Your task to perform on an android device: make emails show in primary in the gmail app Image 0: 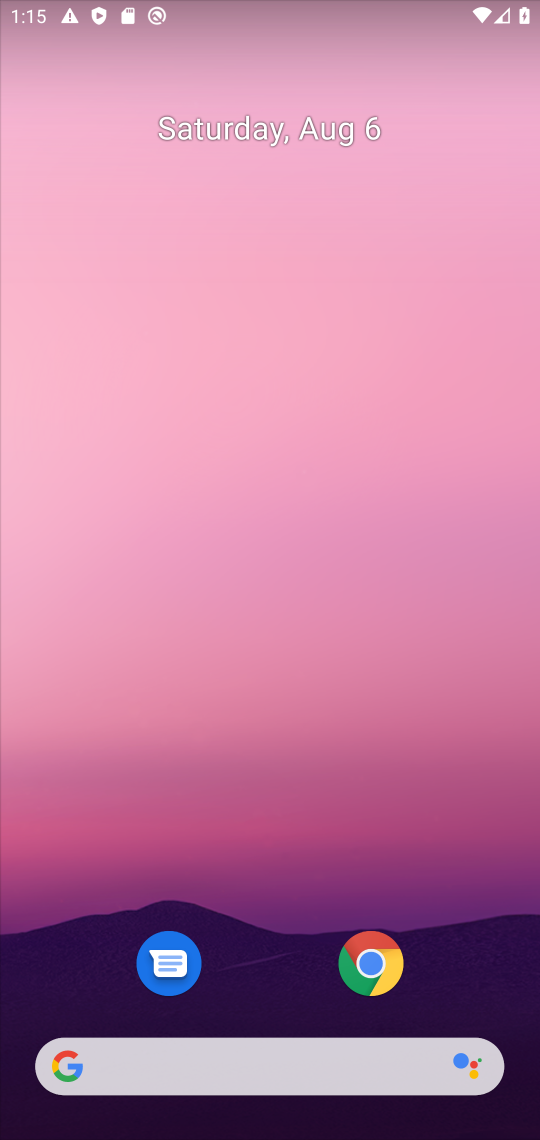
Step 0: drag from (247, 569) to (335, 15)
Your task to perform on an android device: make emails show in primary in the gmail app Image 1: 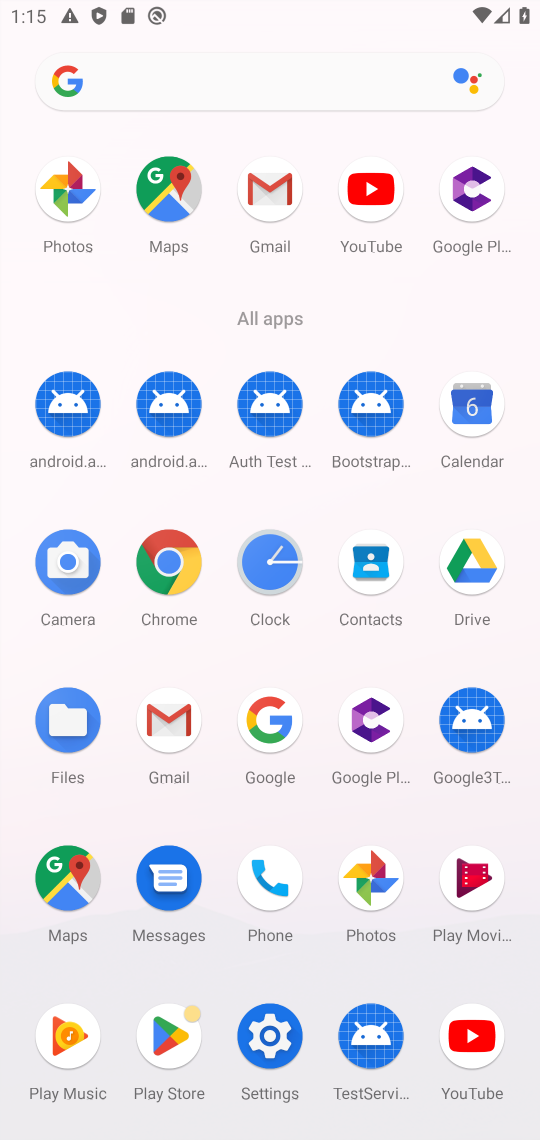
Step 1: click (252, 193)
Your task to perform on an android device: make emails show in primary in the gmail app Image 2: 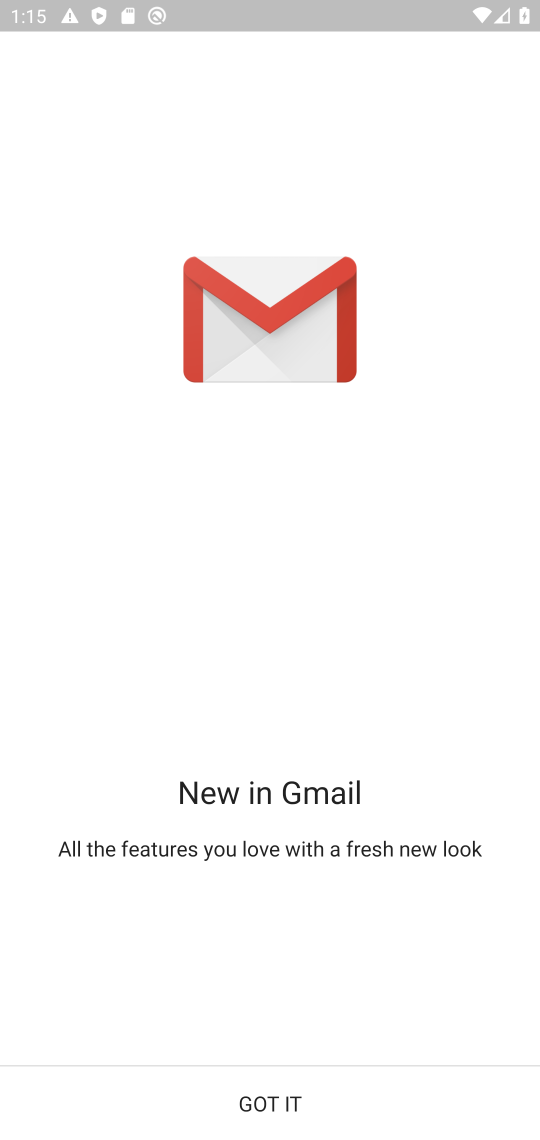
Step 2: click (239, 1088)
Your task to perform on an android device: make emails show in primary in the gmail app Image 3: 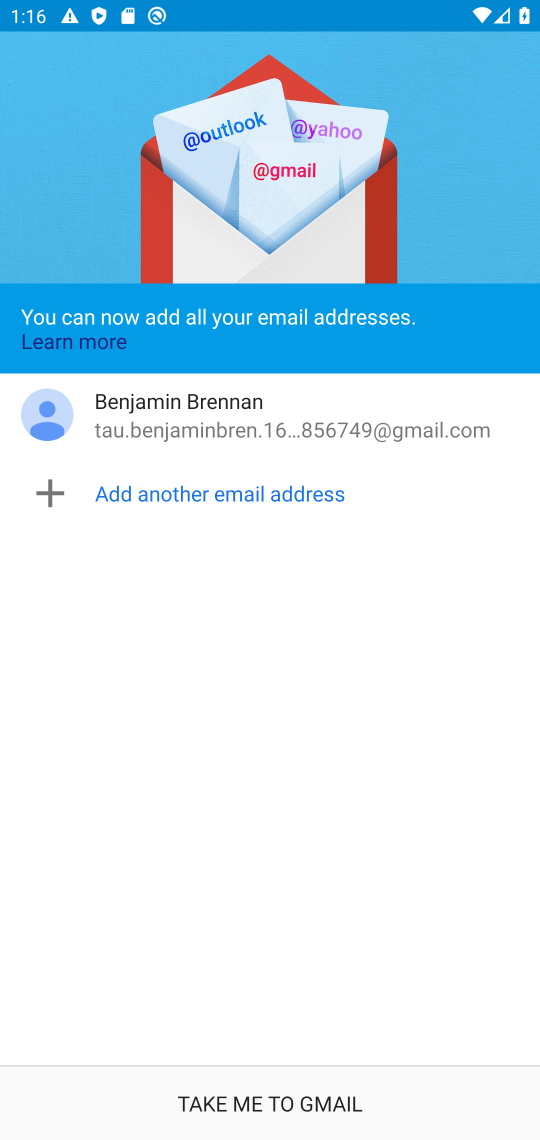
Step 3: click (249, 1096)
Your task to perform on an android device: make emails show in primary in the gmail app Image 4: 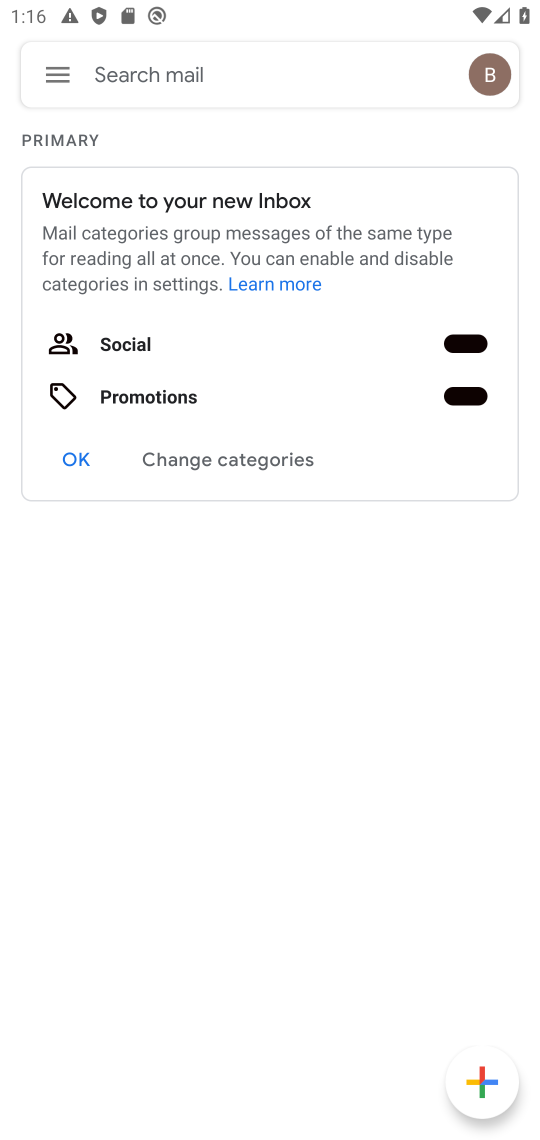
Step 4: click (60, 71)
Your task to perform on an android device: make emails show in primary in the gmail app Image 5: 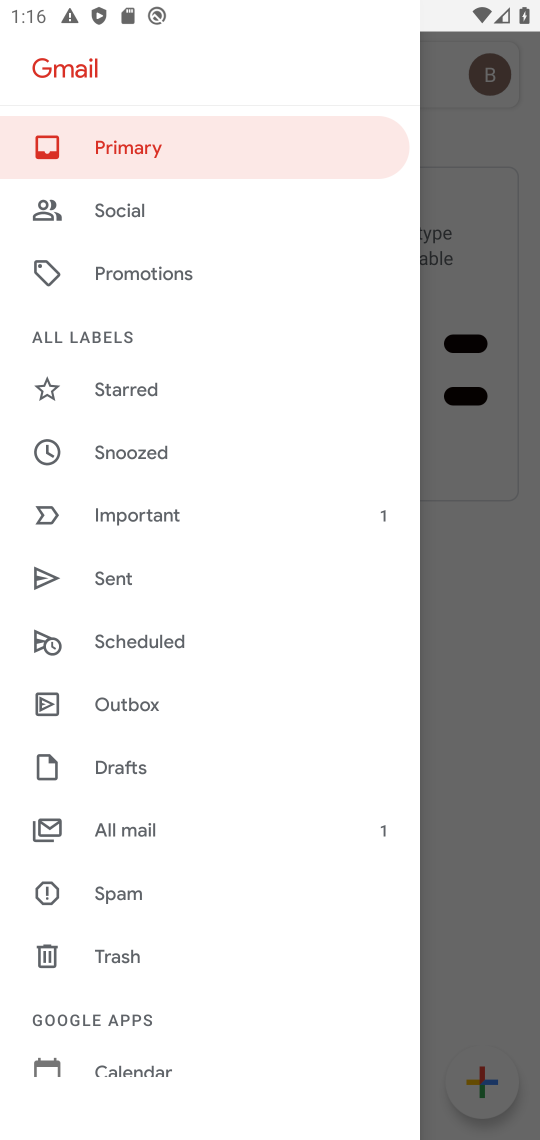
Step 5: drag from (261, 984) to (287, 76)
Your task to perform on an android device: make emails show in primary in the gmail app Image 6: 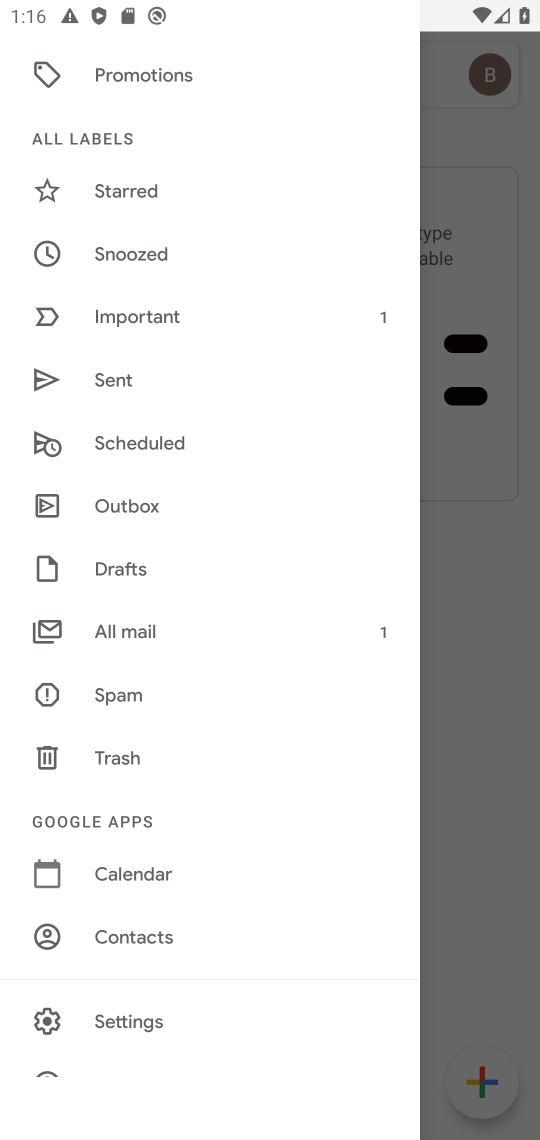
Step 6: click (162, 1019)
Your task to perform on an android device: make emails show in primary in the gmail app Image 7: 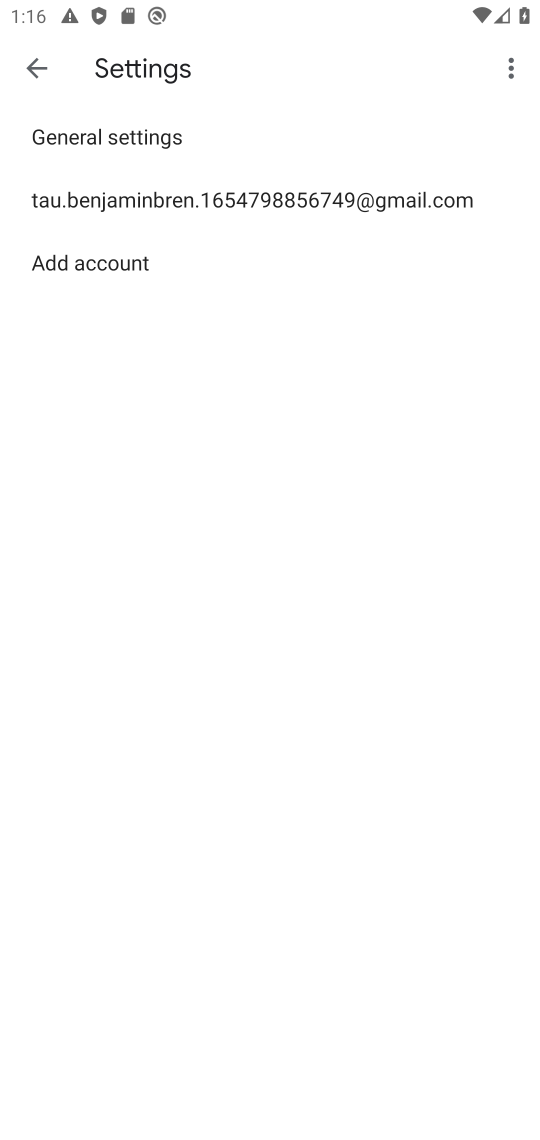
Step 7: click (187, 204)
Your task to perform on an android device: make emails show in primary in the gmail app Image 8: 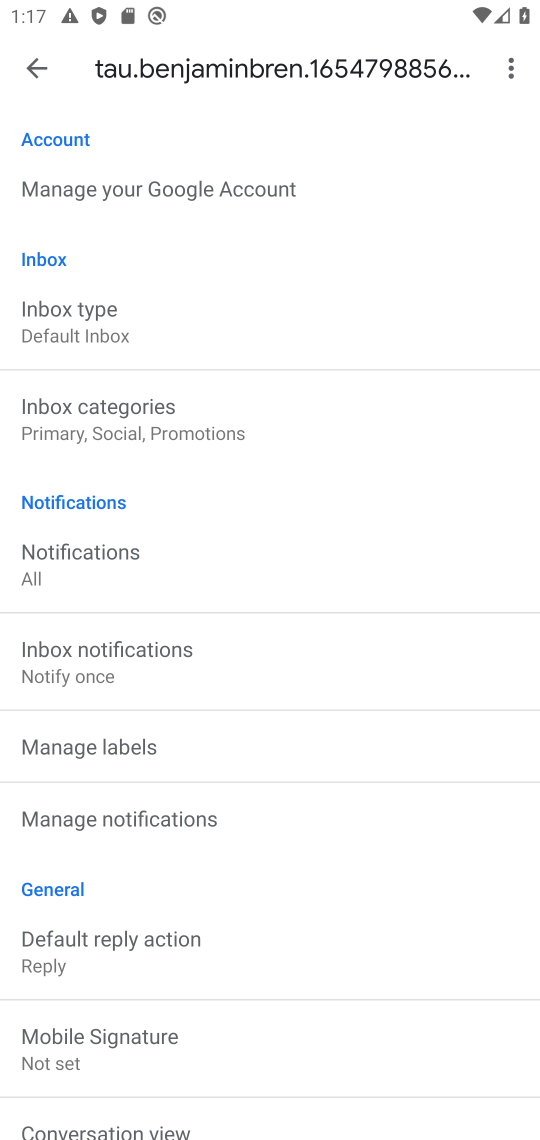
Step 8: click (187, 423)
Your task to perform on an android device: make emails show in primary in the gmail app Image 9: 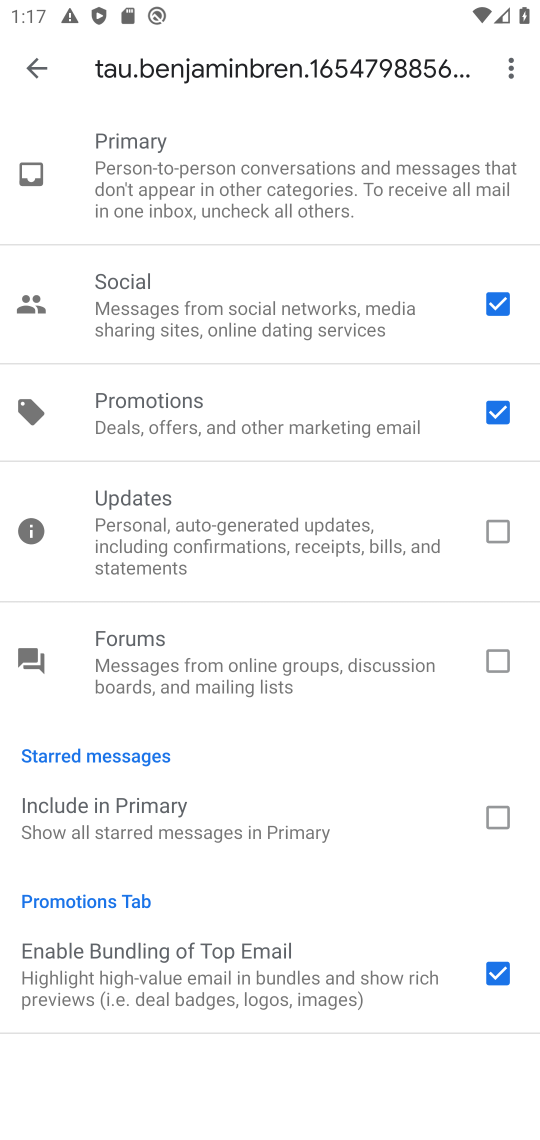
Step 9: click (515, 413)
Your task to perform on an android device: make emails show in primary in the gmail app Image 10: 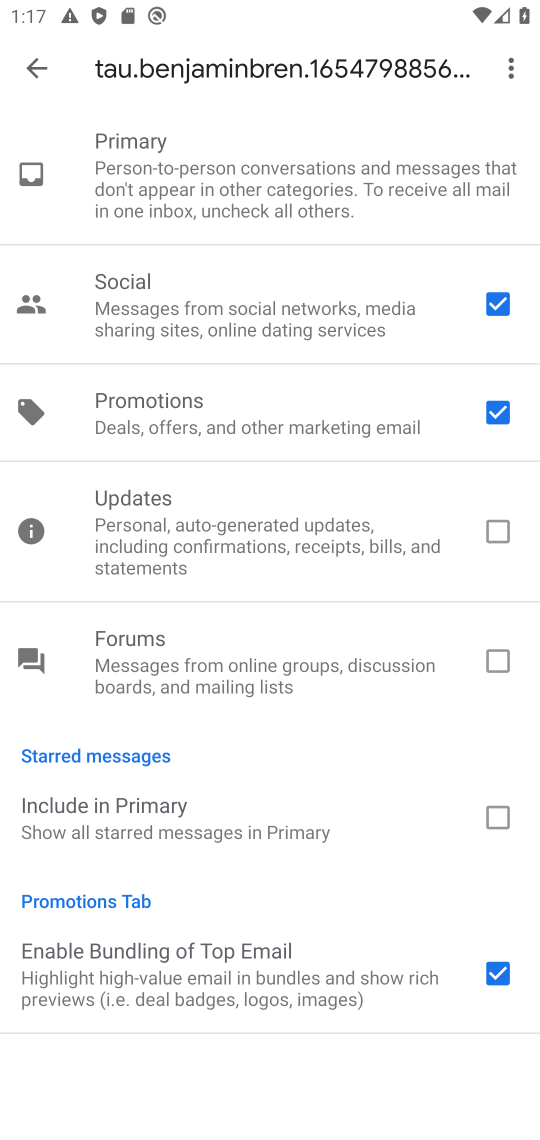
Step 10: click (504, 306)
Your task to perform on an android device: make emails show in primary in the gmail app Image 11: 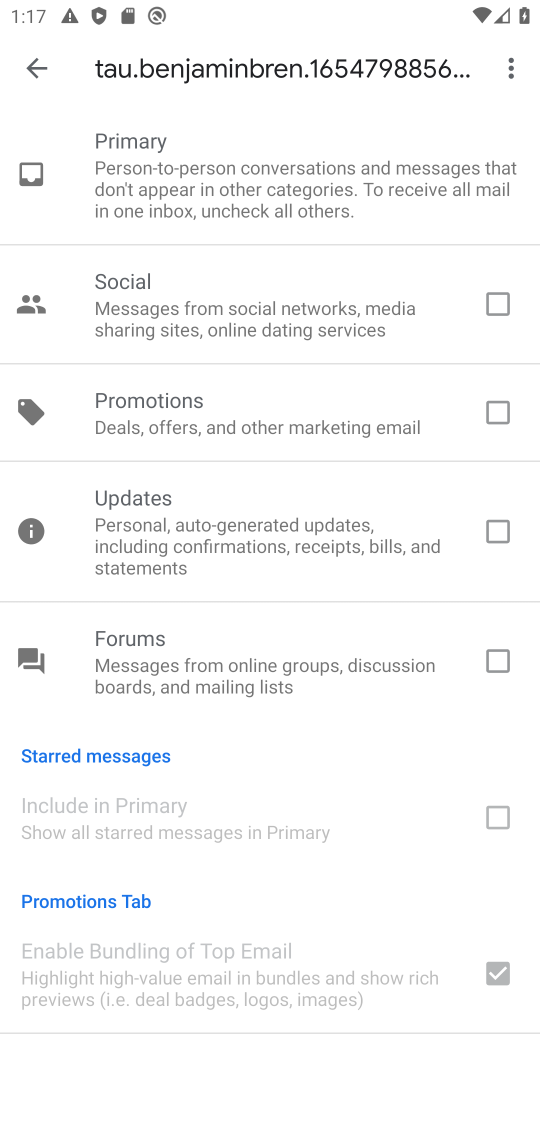
Step 11: task complete